Your task to perform on an android device: check the backup settings in the google photos Image 0: 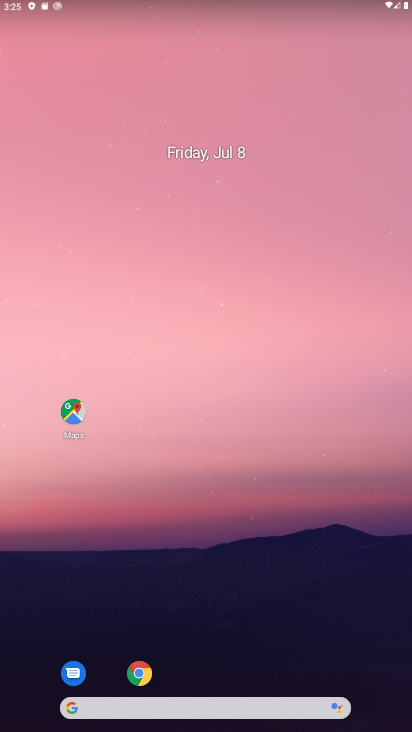
Step 0: drag from (241, 689) to (3, 67)
Your task to perform on an android device: check the backup settings in the google photos Image 1: 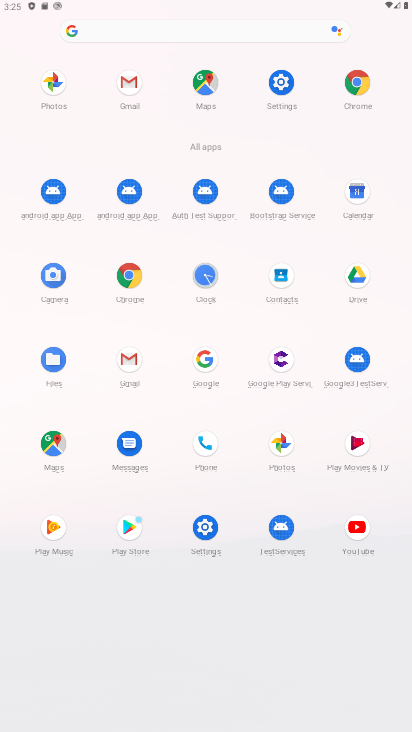
Step 1: click (49, 87)
Your task to perform on an android device: check the backup settings in the google photos Image 2: 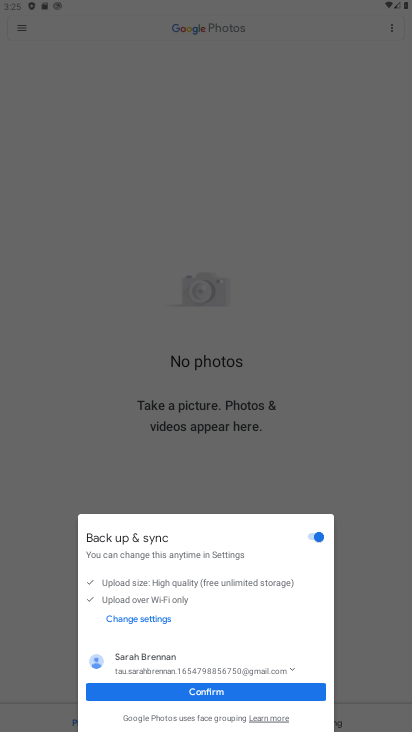
Step 2: click (194, 691)
Your task to perform on an android device: check the backup settings in the google photos Image 3: 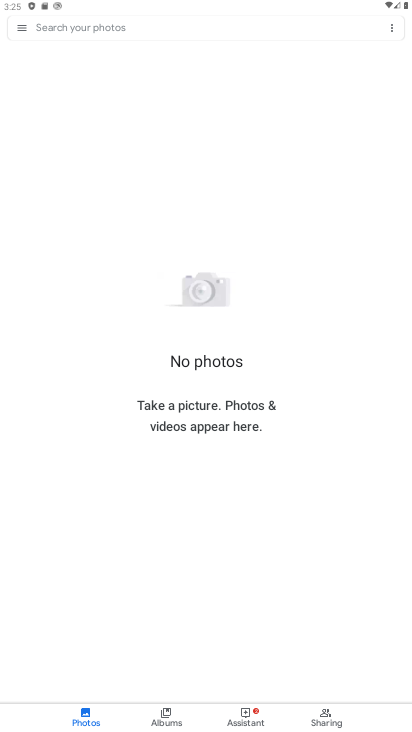
Step 3: click (24, 32)
Your task to perform on an android device: check the backup settings in the google photos Image 4: 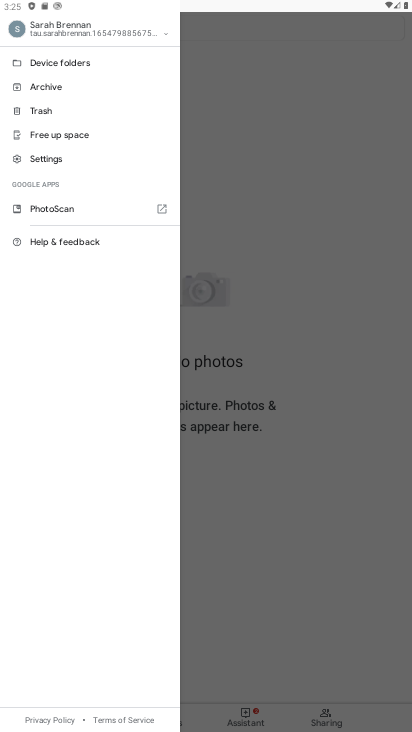
Step 4: click (40, 163)
Your task to perform on an android device: check the backup settings in the google photos Image 5: 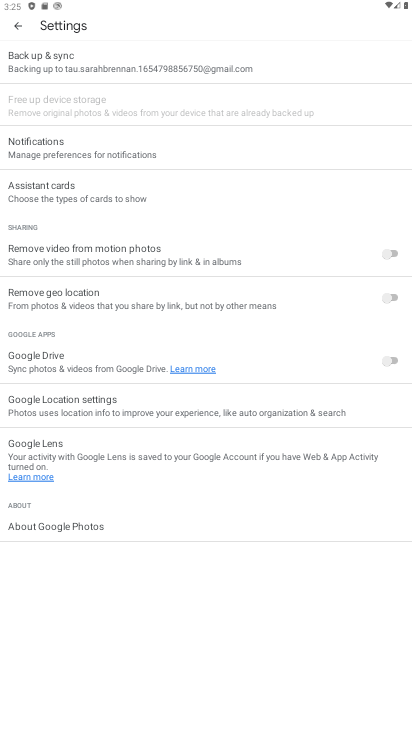
Step 5: click (65, 69)
Your task to perform on an android device: check the backup settings in the google photos Image 6: 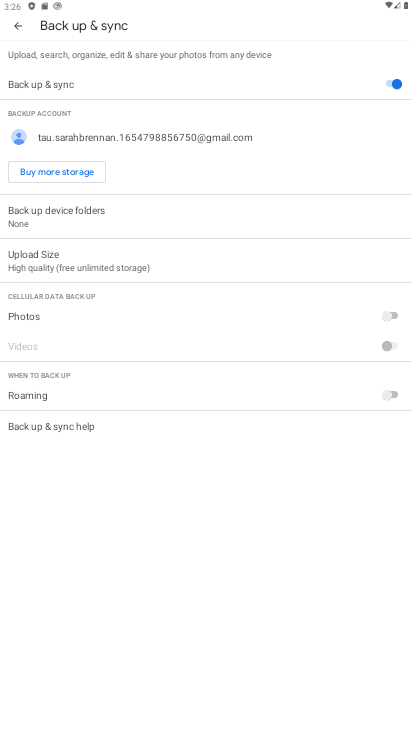
Step 6: task complete